Your task to perform on an android device: Go to display settings Image 0: 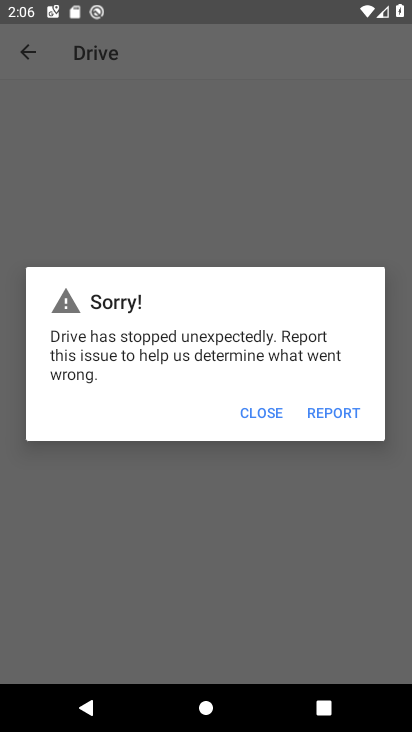
Step 0: press home button
Your task to perform on an android device: Go to display settings Image 1: 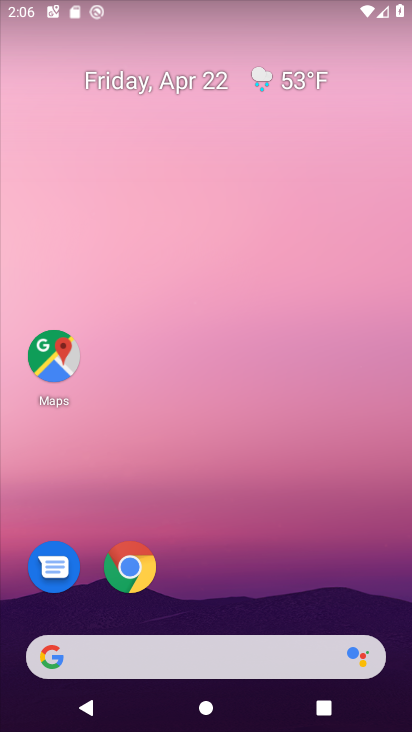
Step 1: drag from (300, 574) to (289, 91)
Your task to perform on an android device: Go to display settings Image 2: 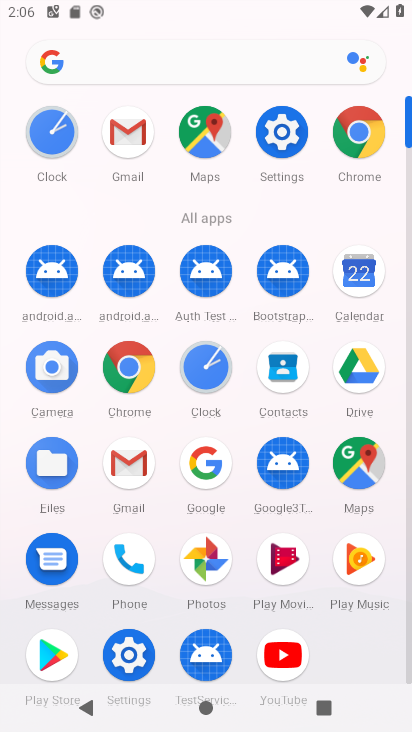
Step 2: click (279, 129)
Your task to perform on an android device: Go to display settings Image 3: 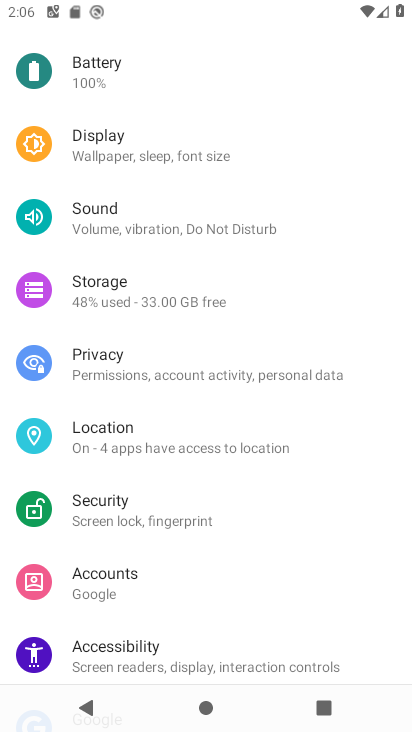
Step 3: click (187, 148)
Your task to perform on an android device: Go to display settings Image 4: 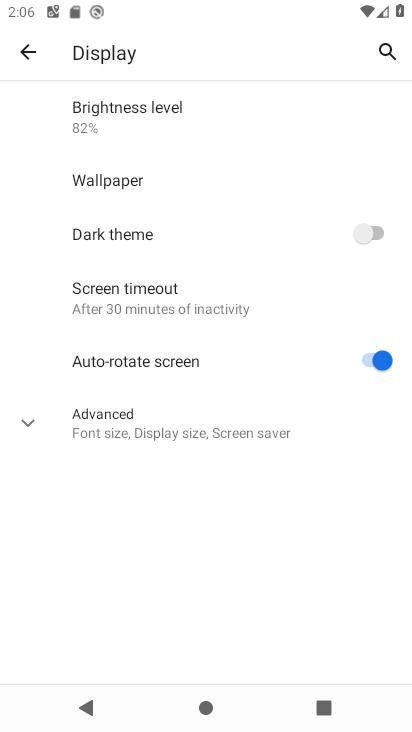
Step 4: task complete